Your task to perform on an android device: check the backup settings in the google photos Image 0: 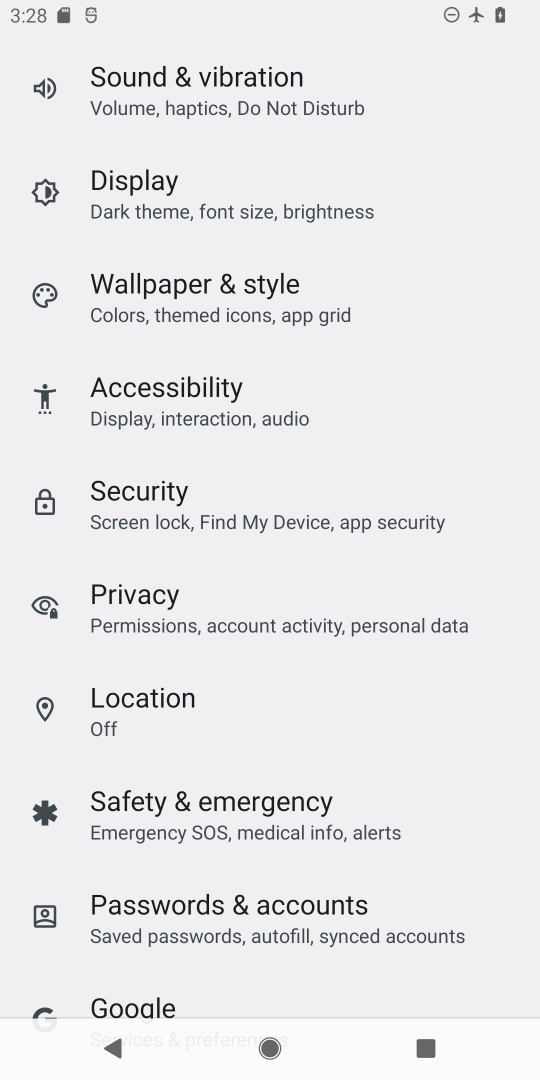
Step 0: press back button
Your task to perform on an android device: check the backup settings in the google photos Image 1: 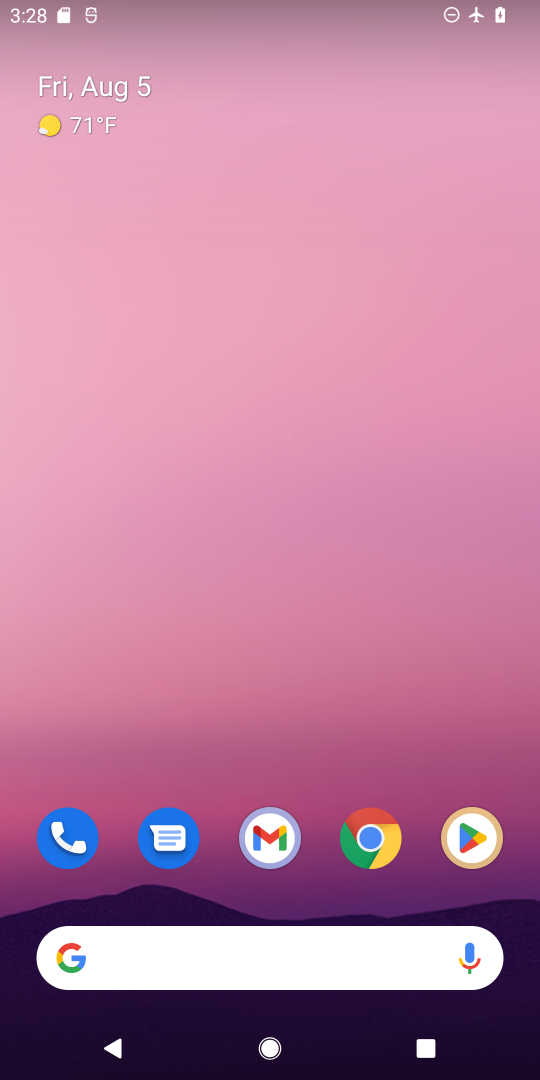
Step 1: drag from (525, 895) to (449, 319)
Your task to perform on an android device: check the backup settings in the google photos Image 2: 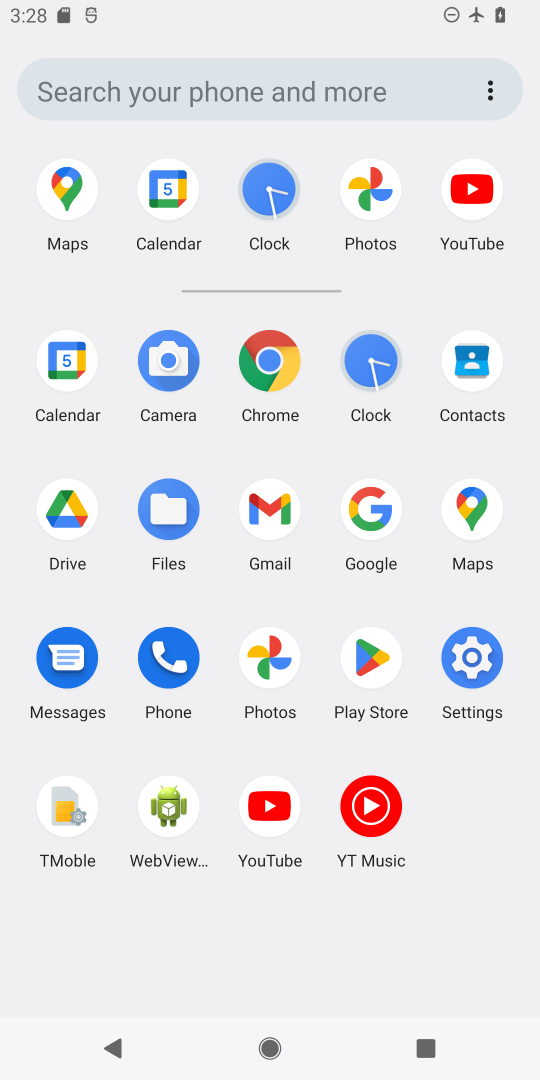
Step 2: click (244, 673)
Your task to perform on an android device: check the backup settings in the google photos Image 3: 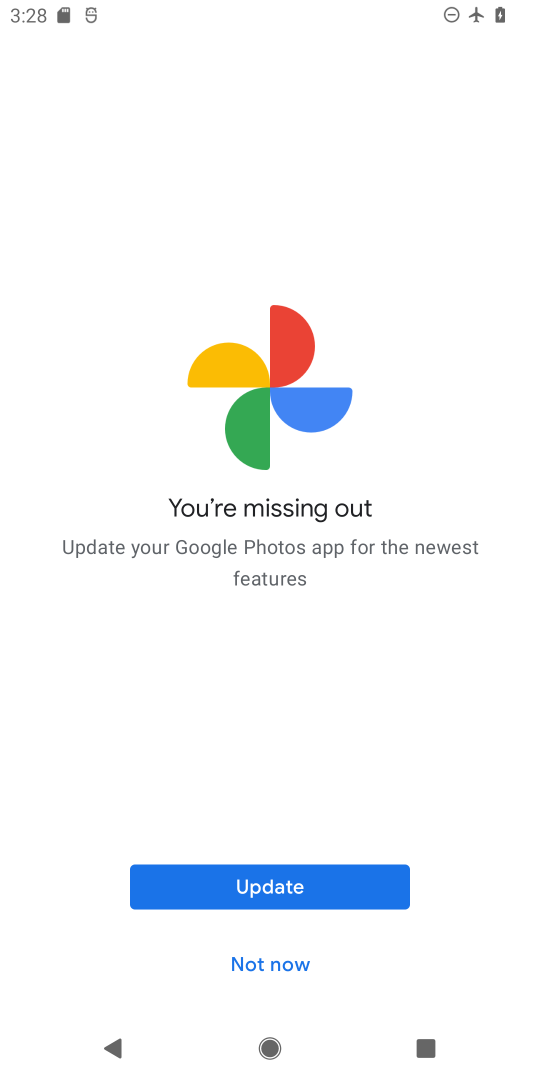
Step 3: click (299, 882)
Your task to perform on an android device: check the backup settings in the google photos Image 4: 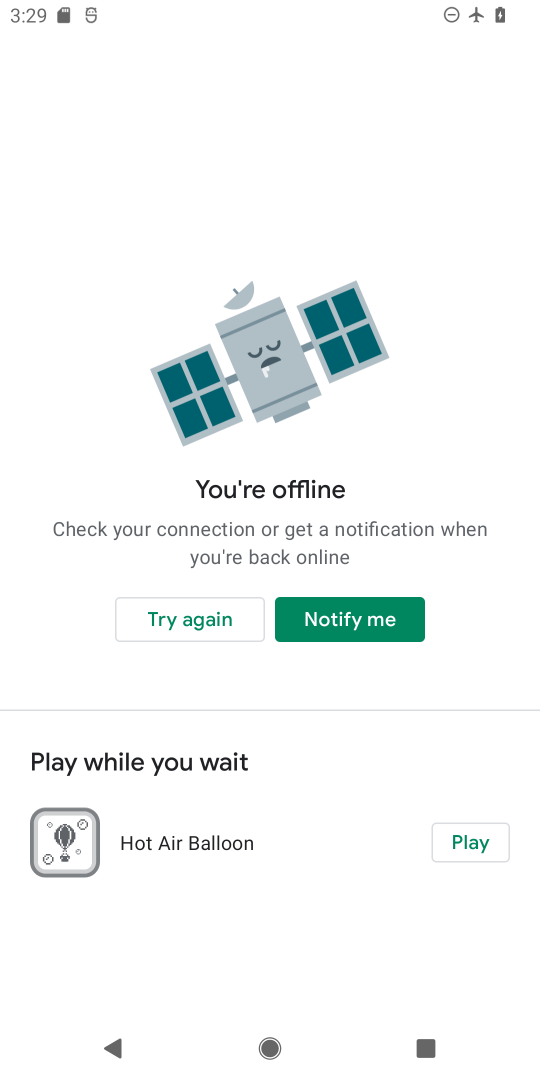
Step 4: task complete